Your task to perform on an android device: Open internet settings Image 0: 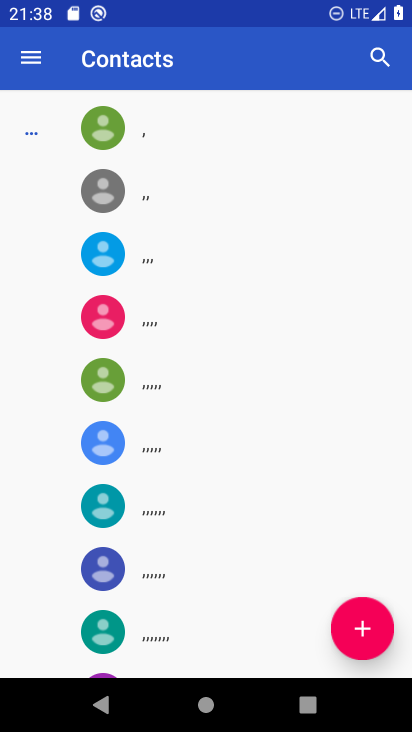
Step 0: press home button
Your task to perform on an android device: Open internet settings Image 1: 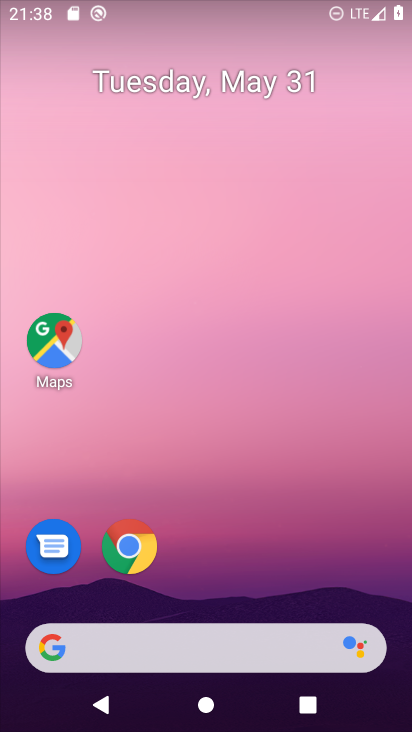
Step 1: drag from (399, 711) to (330, 144)
Your task to perform on an android device: Open internet settings Image 2: 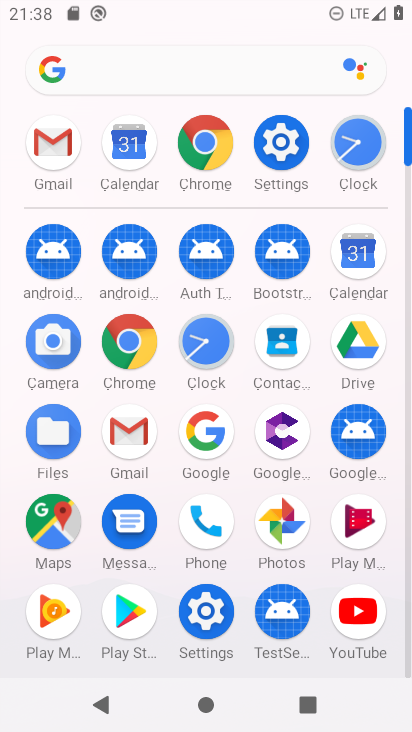
Step 2: click (277, 146)
Your task to perform on an android device: Open internet settings Image 3: 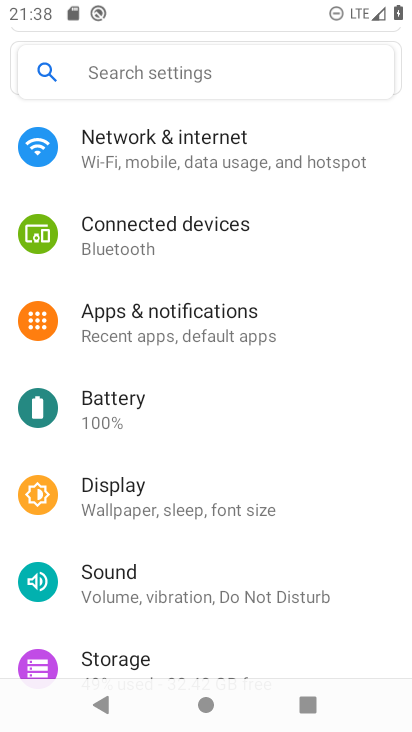
Step 3: click (182, 159)
Your task to perform on an android device: Open internet settings Image 4: 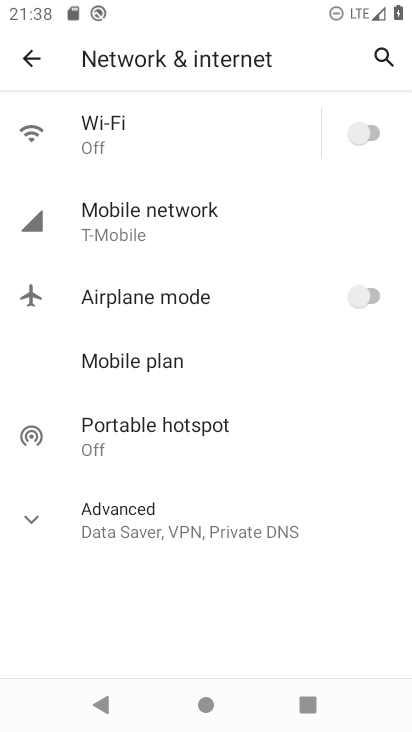
Step 4: click (39, 511)
Your task to perform on an android device: Open internet settings Image 5: 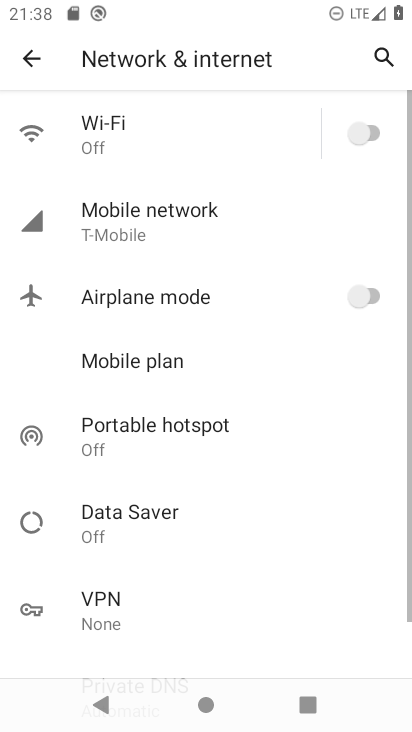
Step 5: task complete